Your task to perform on an android device: add a label to a message in the gmail app Image 0: 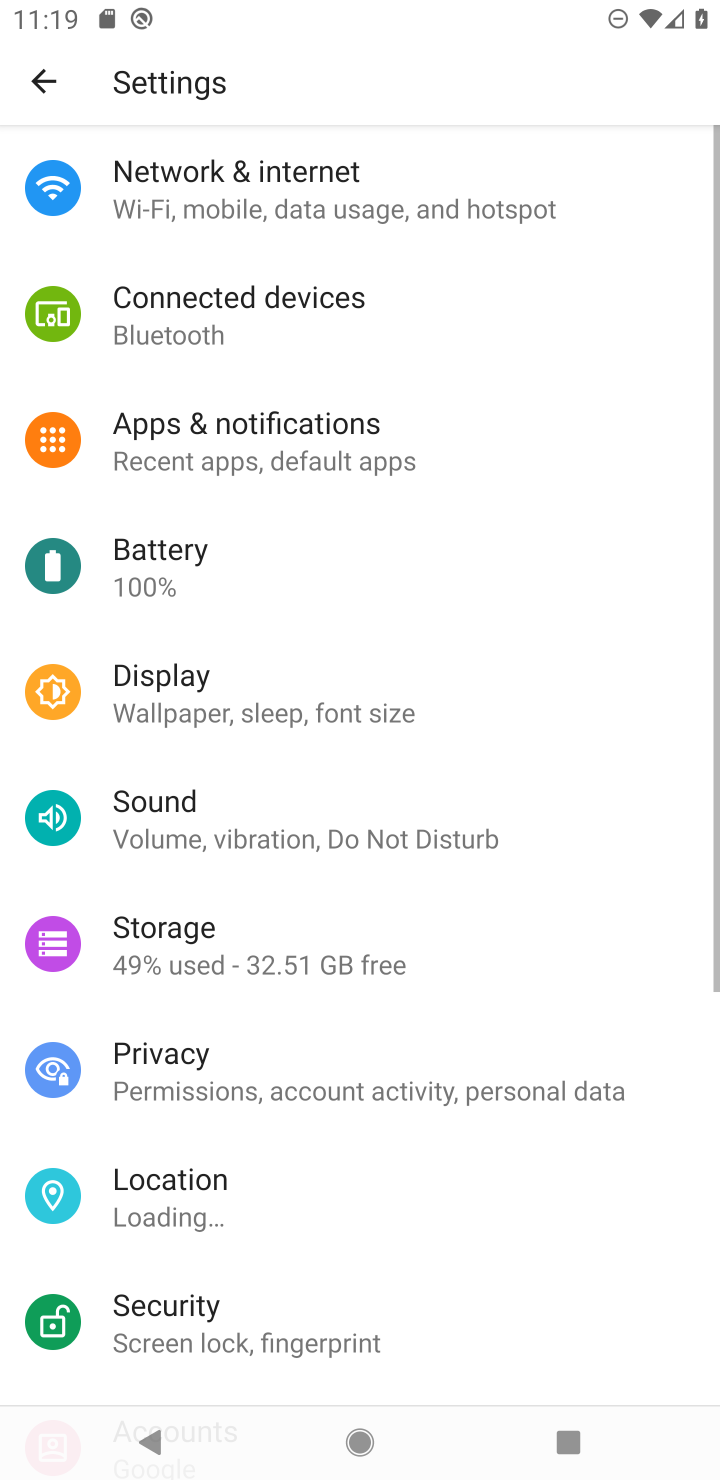
Step 0: drag from (290, 1289) to (327, 652)
Your task to perform on an android device: add a label to a message in the gmail app Image 1: 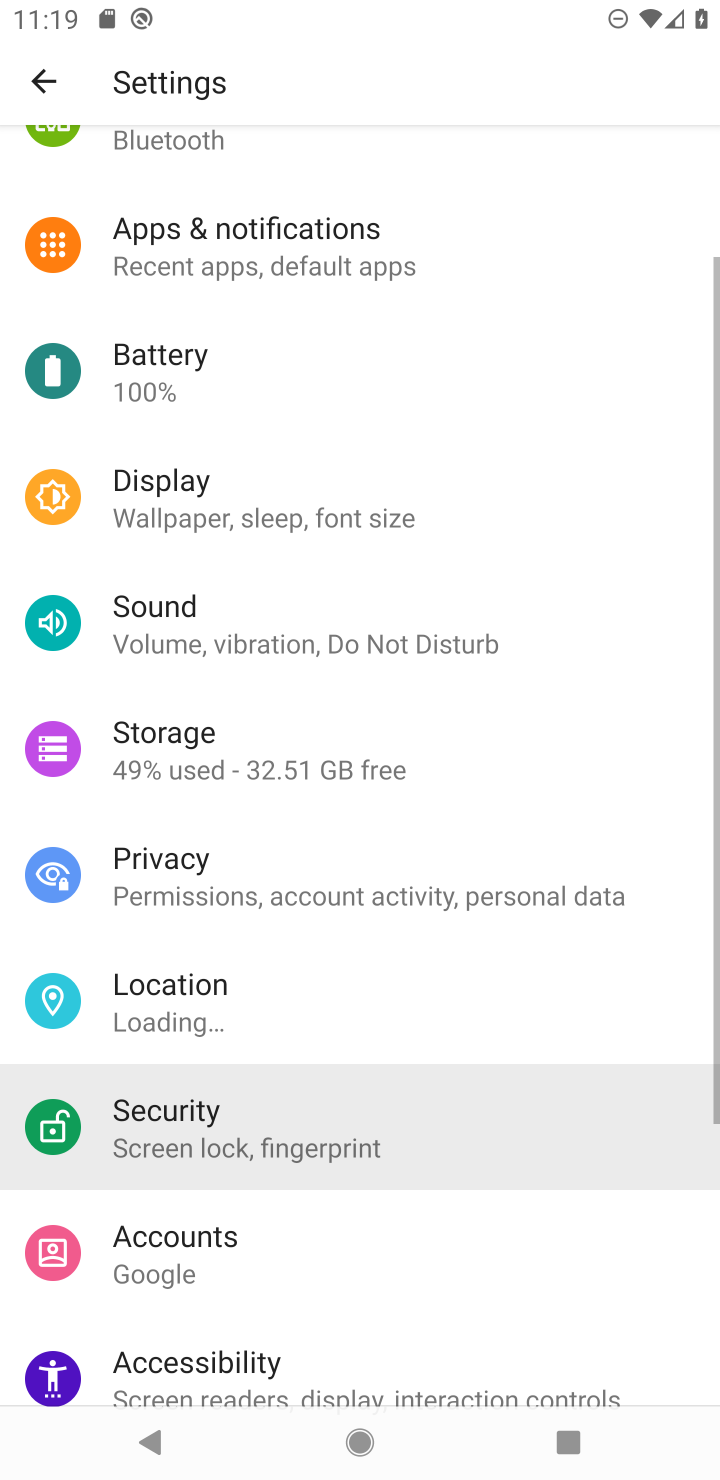
Step 1: drag from (401, 636) to (488, 1466)
Your task to perform on an android device: add a label to a message in the gmail app Image 2: 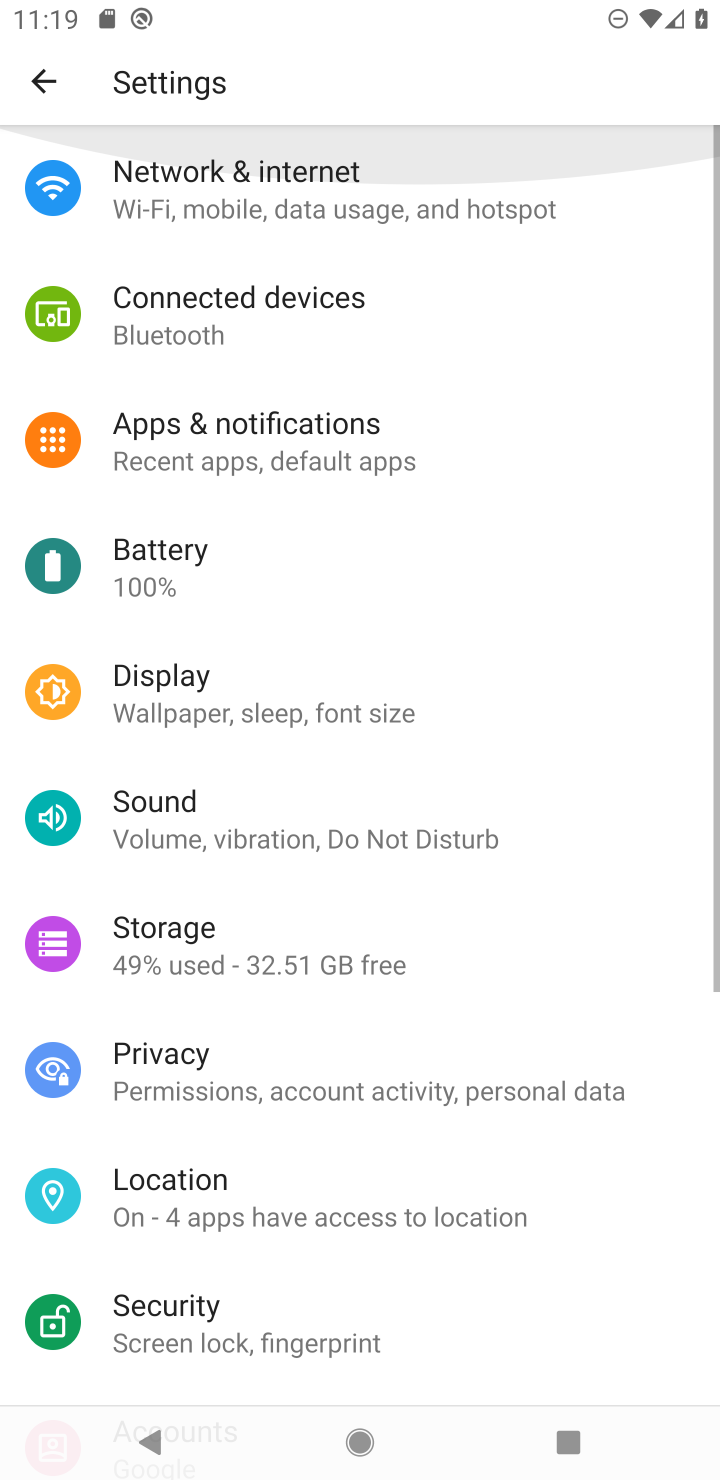
Step 2: press home button
Your task to perform on an android device: add a label to a message in the gmail app Image 3: 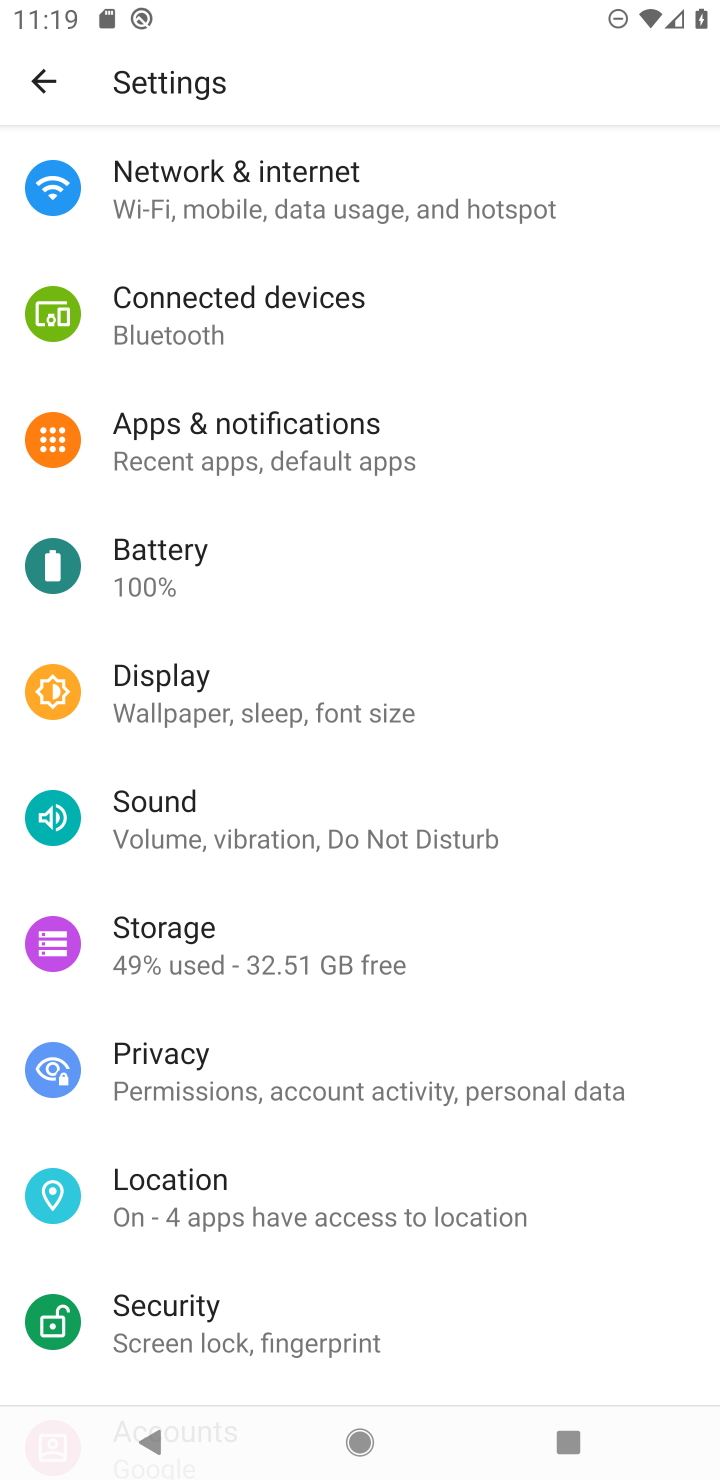
Step 3: press home button
Your task to perform on an android device: add a label to a message in the gmail app Image 4: 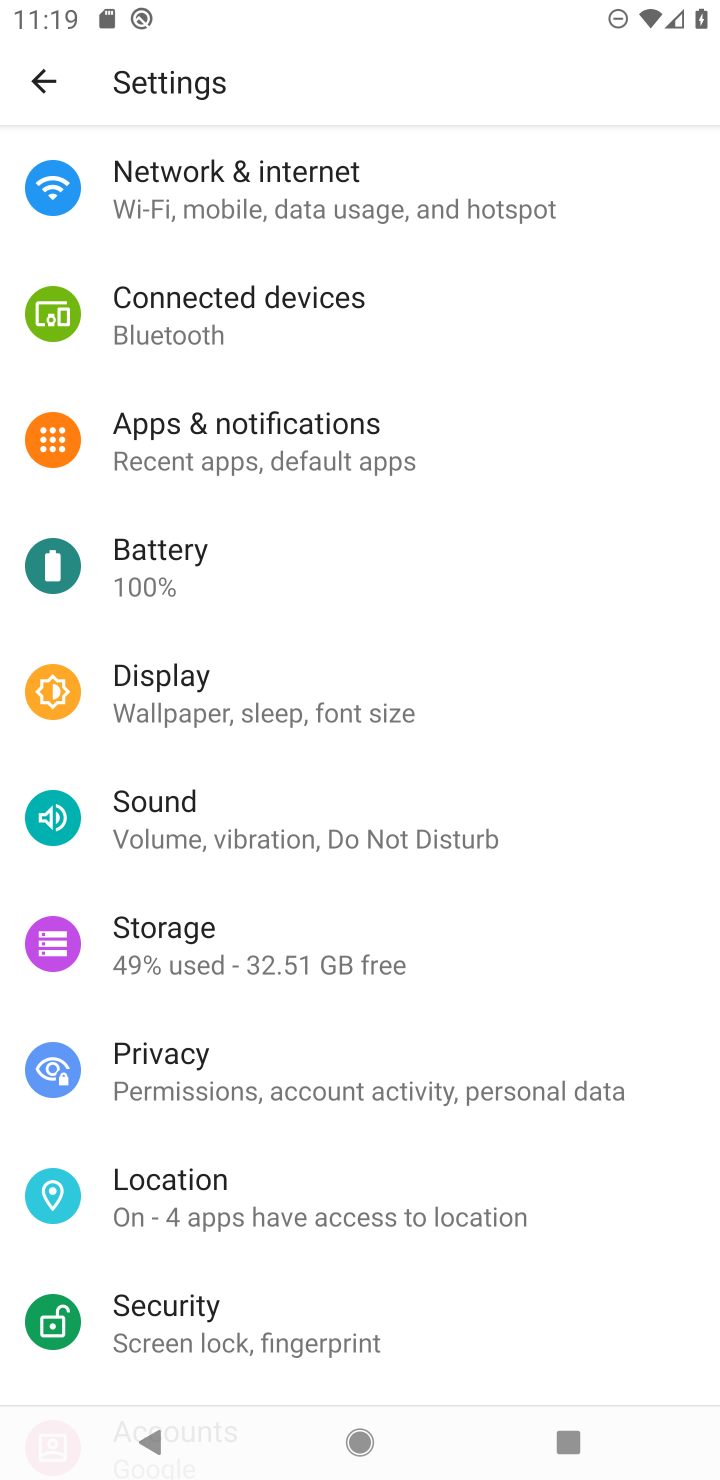
Step 4: click (458, 384)
Your task to perform on an android device: add a label to a message in the gmail app Image 5: 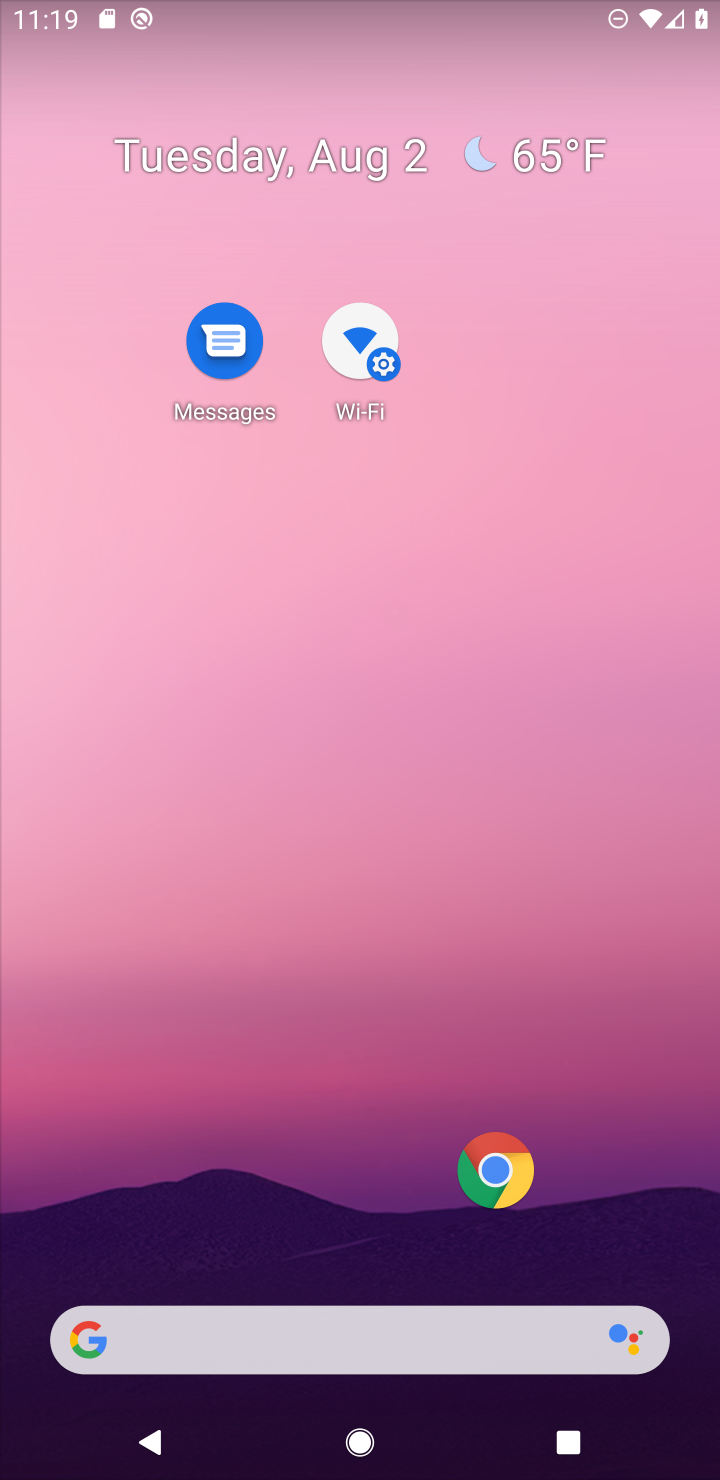
Step 5: drag from (301, 740) to (272, 467)
Your task to perform on an android device: add a label to a message in the gmail app Image 6: 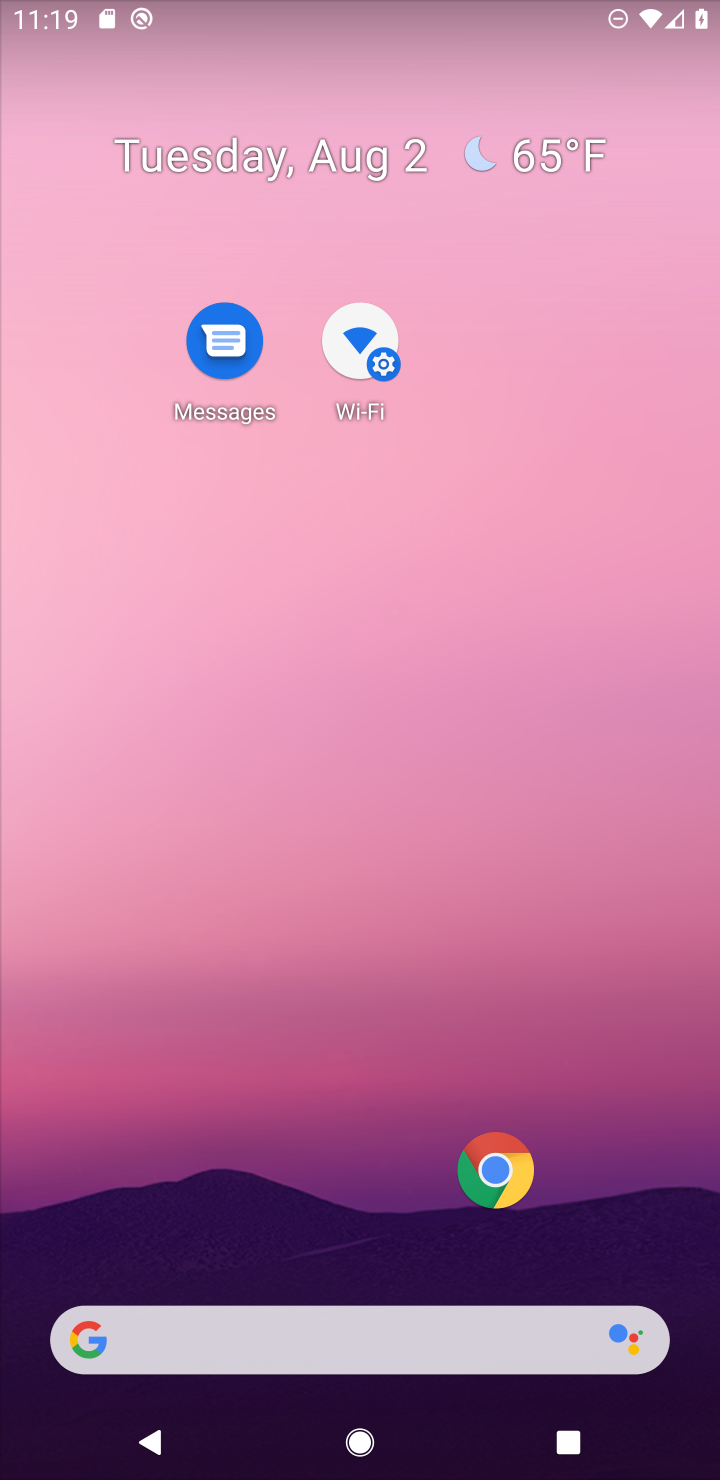
Step 6: drag from (458, 724) to (507, 203)
Your task to perform on an android device: add a label to a message in the gmail app Image 7: 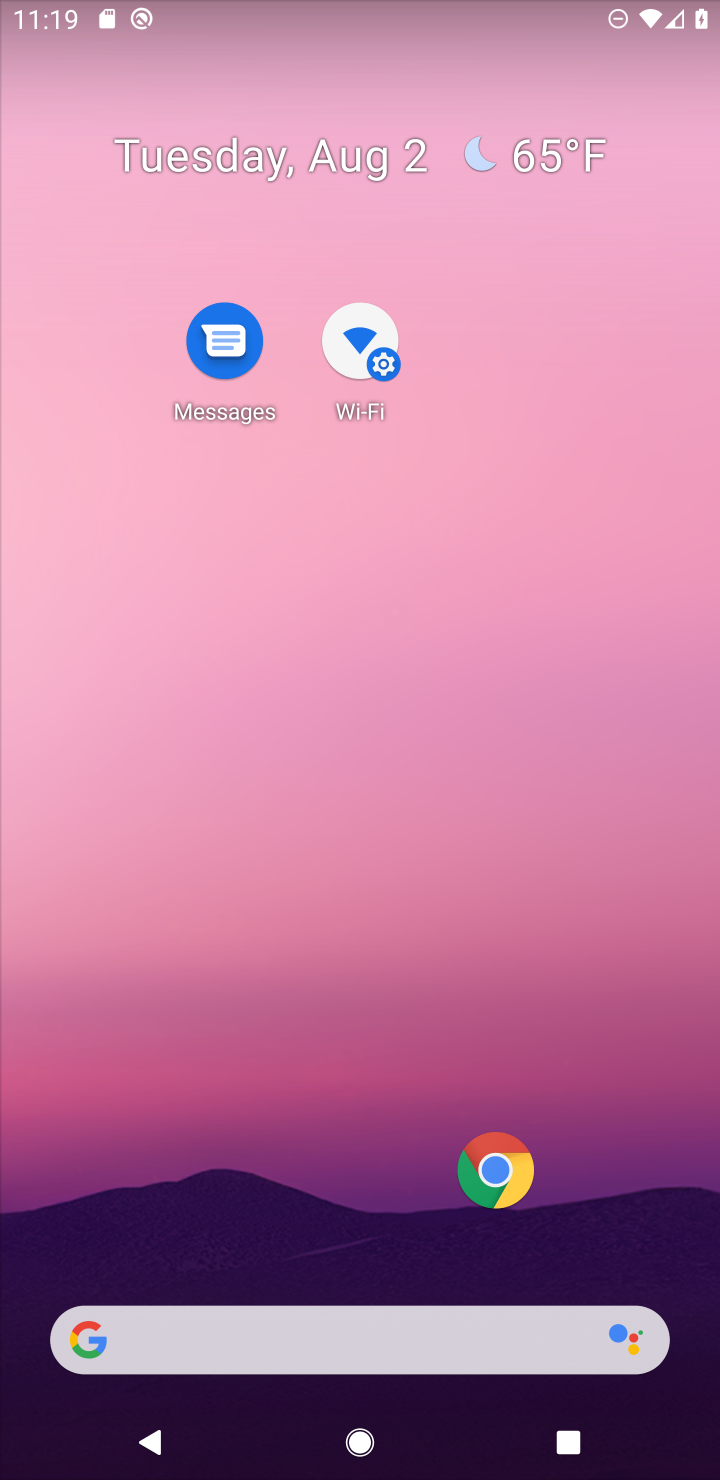
Step 7: drag from (330, 918) to (394, 184)
Your task to perform on an android device: add a label to a message in the gmail app Image 8: 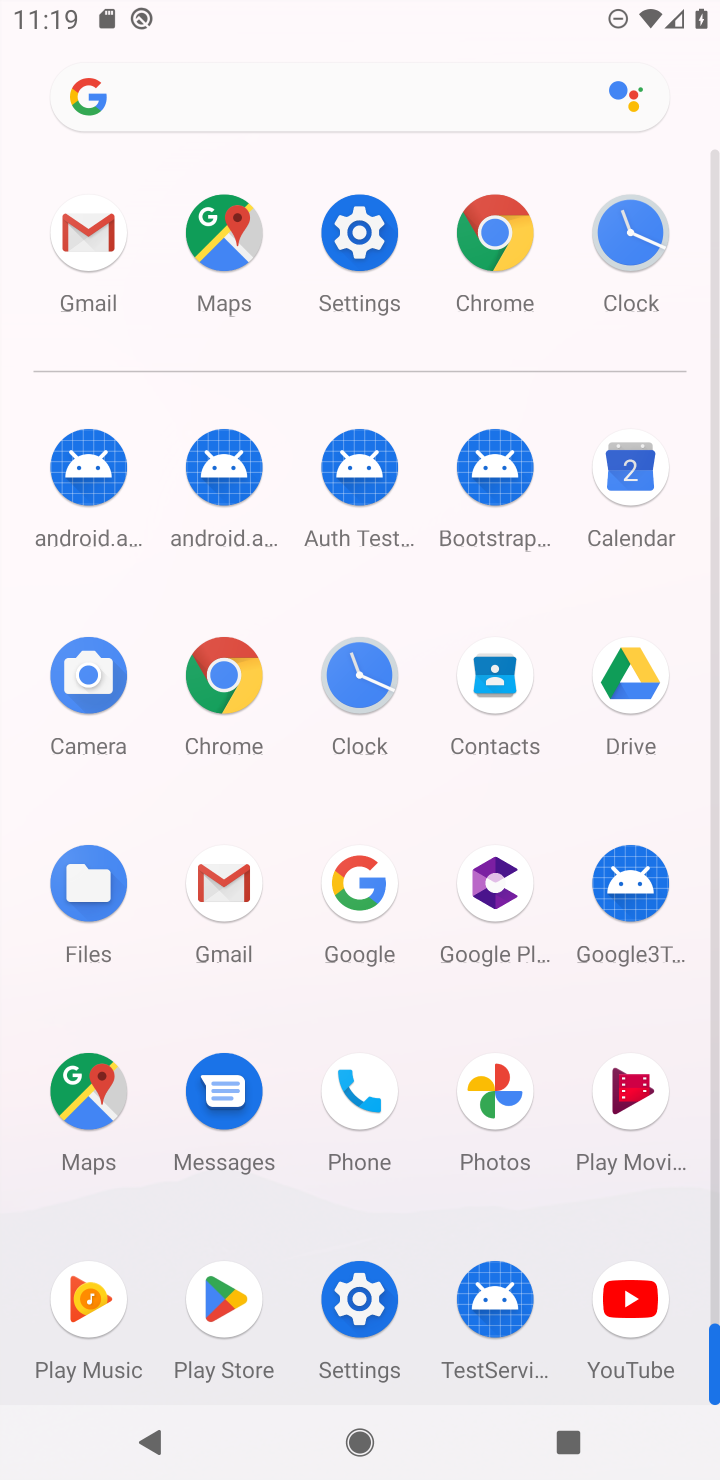
Step 8: drag from (272, 1178) to (306, 323)
Your task to perform on an android device: add a label to a message in the gmail app Image 9: 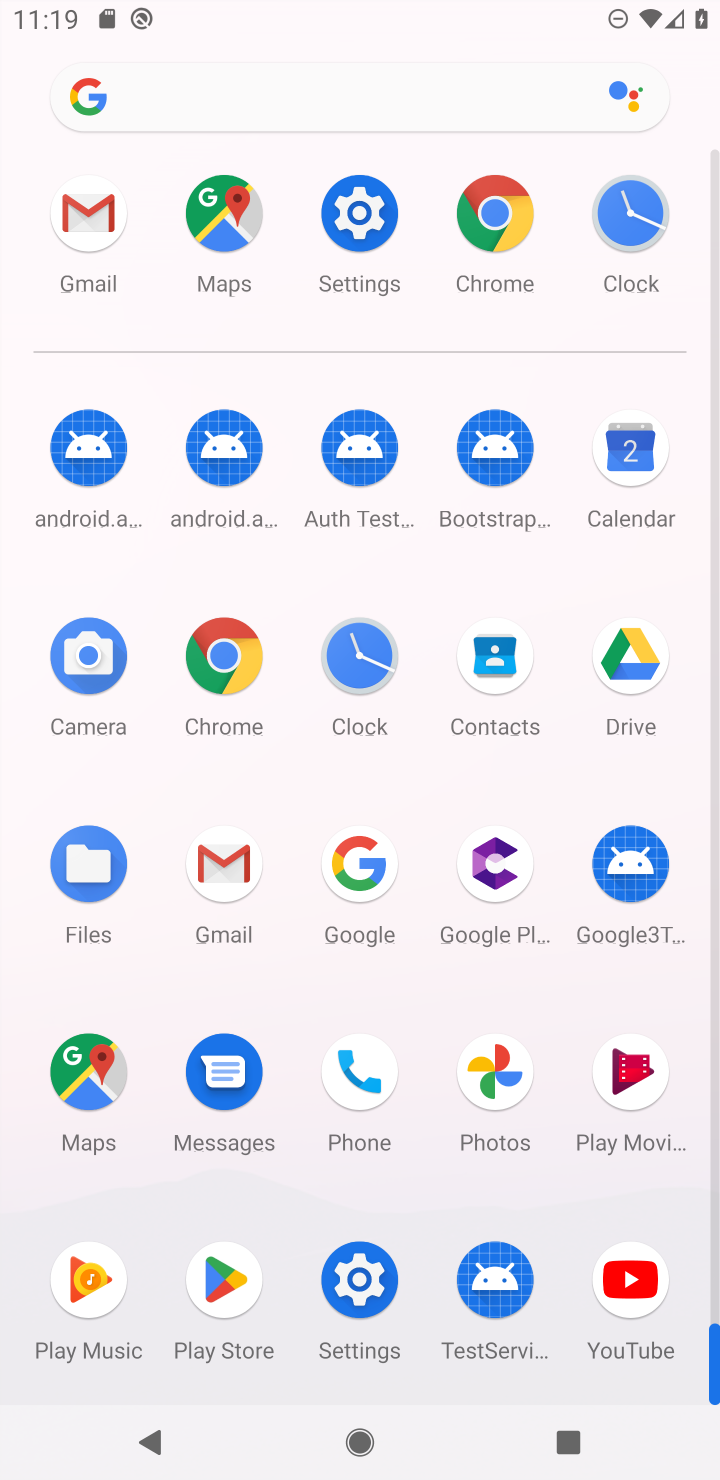
Step 9: click (215, 860)
Your task to perform on an android device: add a label to a message in the gmail app Image 10: 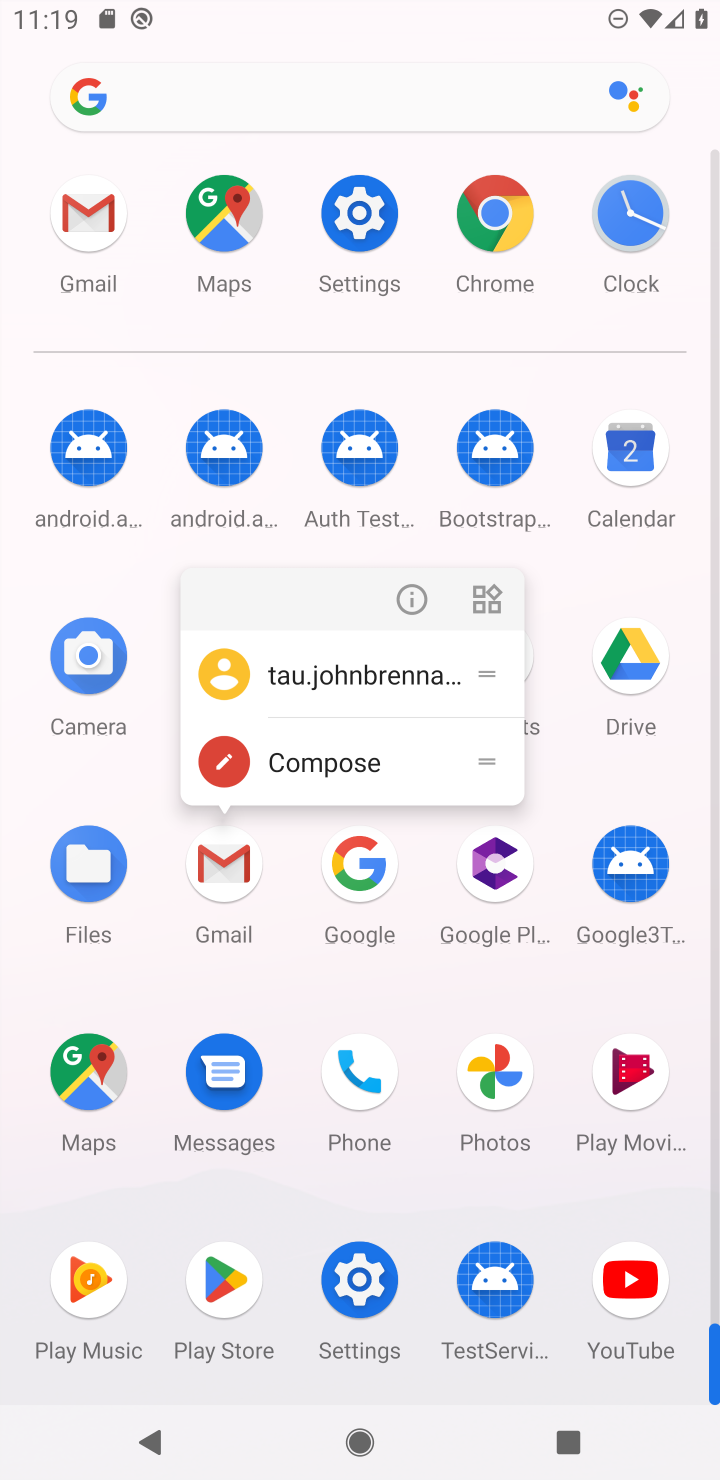
Step 10: click (428, 612)
Your task to perform on an android device: add a label to a message in the gmail app Image 11: 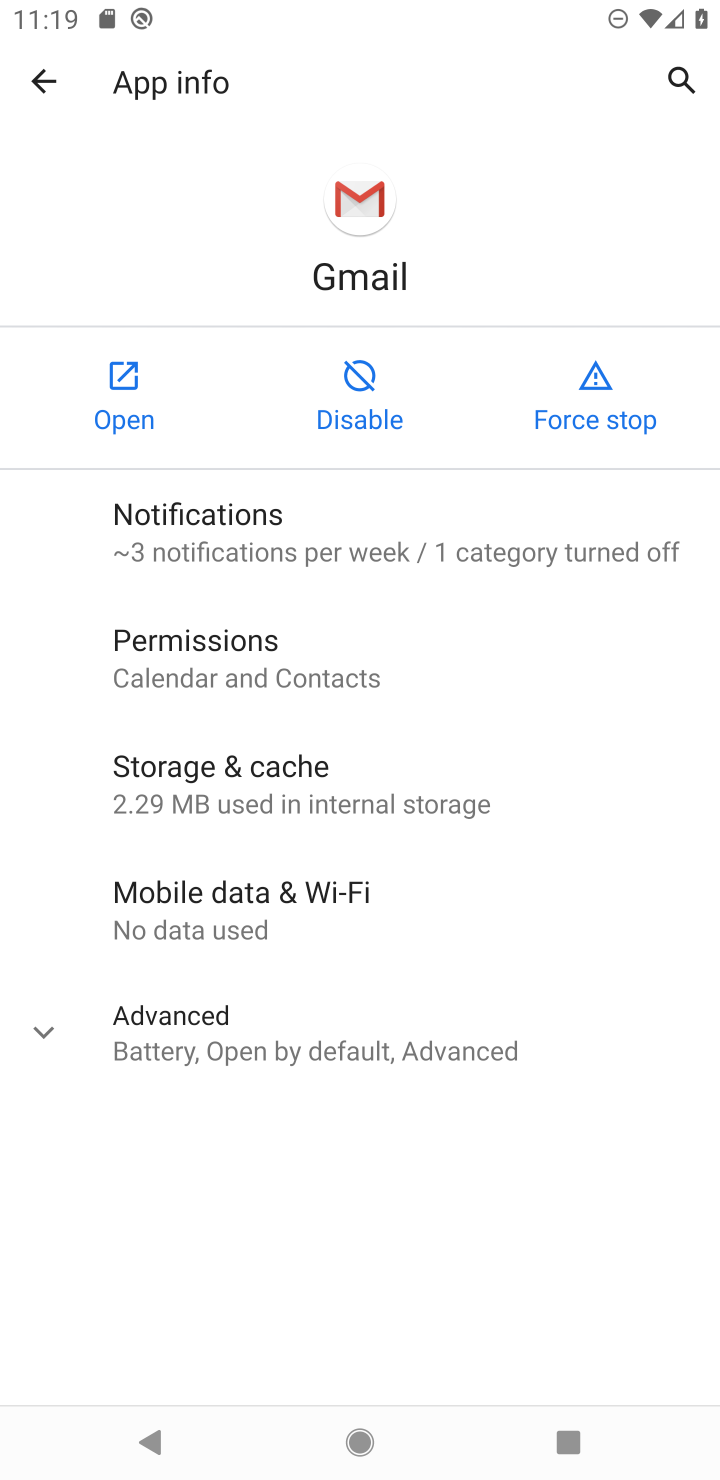
Step 11: click (128, 418)
Your task to perform on an android device: add a label to a message in the gmail app Image 12: 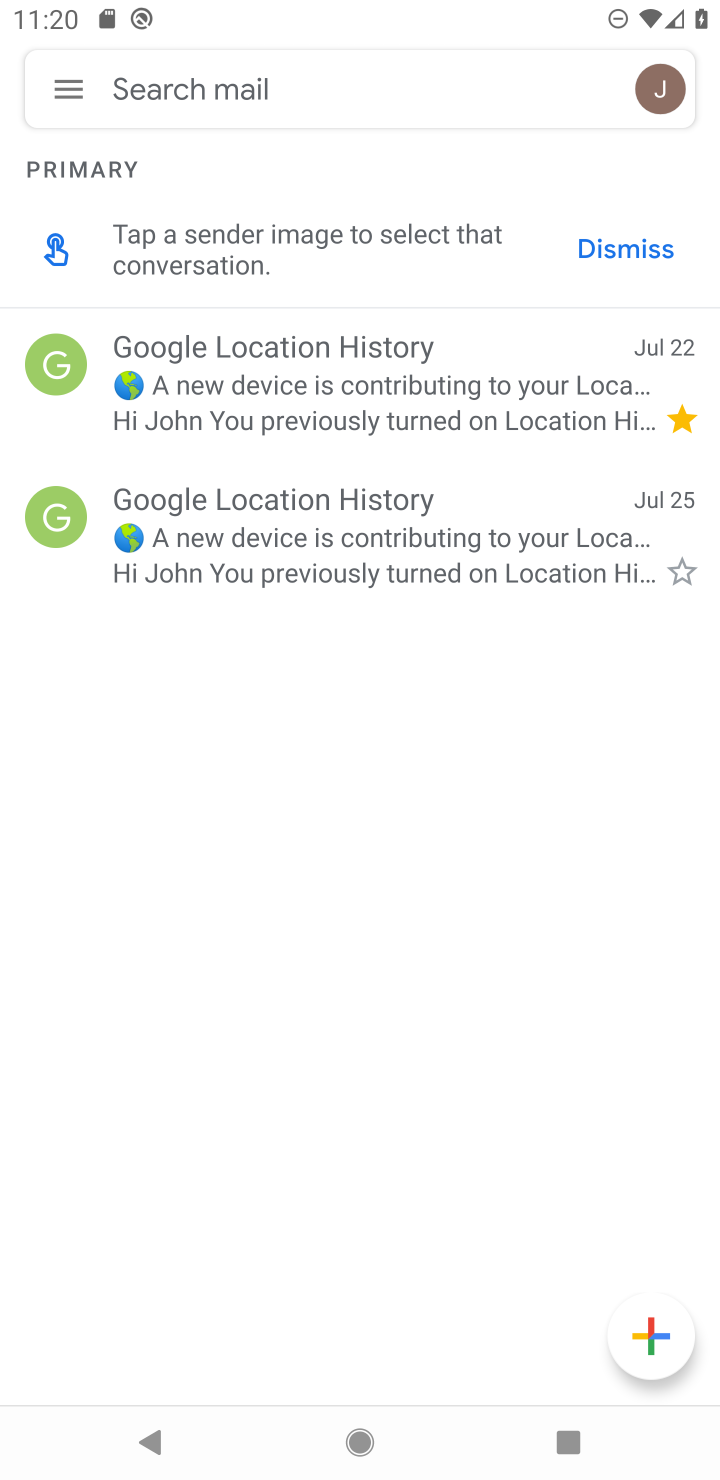
Step 12: click (57, 93)
Your task to perform on an android device: add a label to a message in the gmail app Image 13: 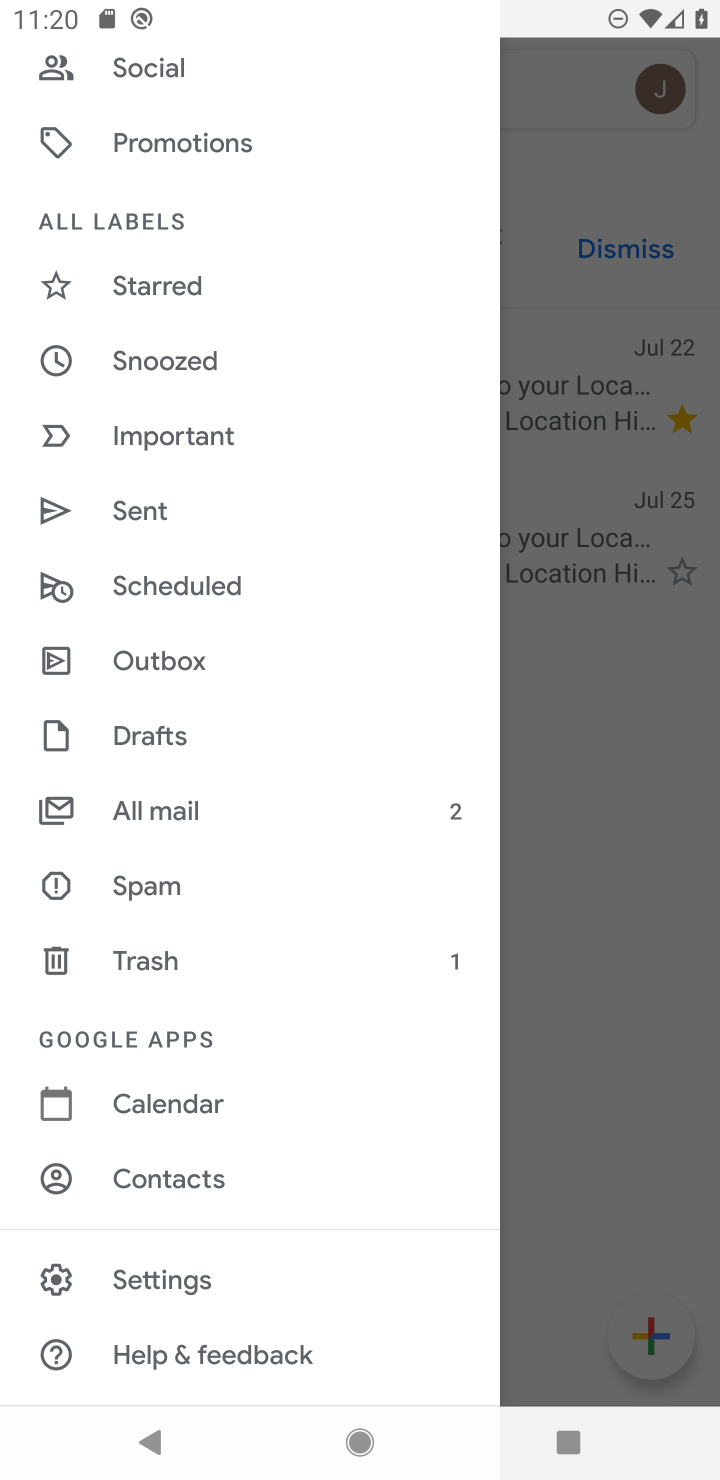
Step 13: drag from (239, 304) to (404, 1210)
Your task to perform on an android device: add a label to a message in the gmail app Image 14: 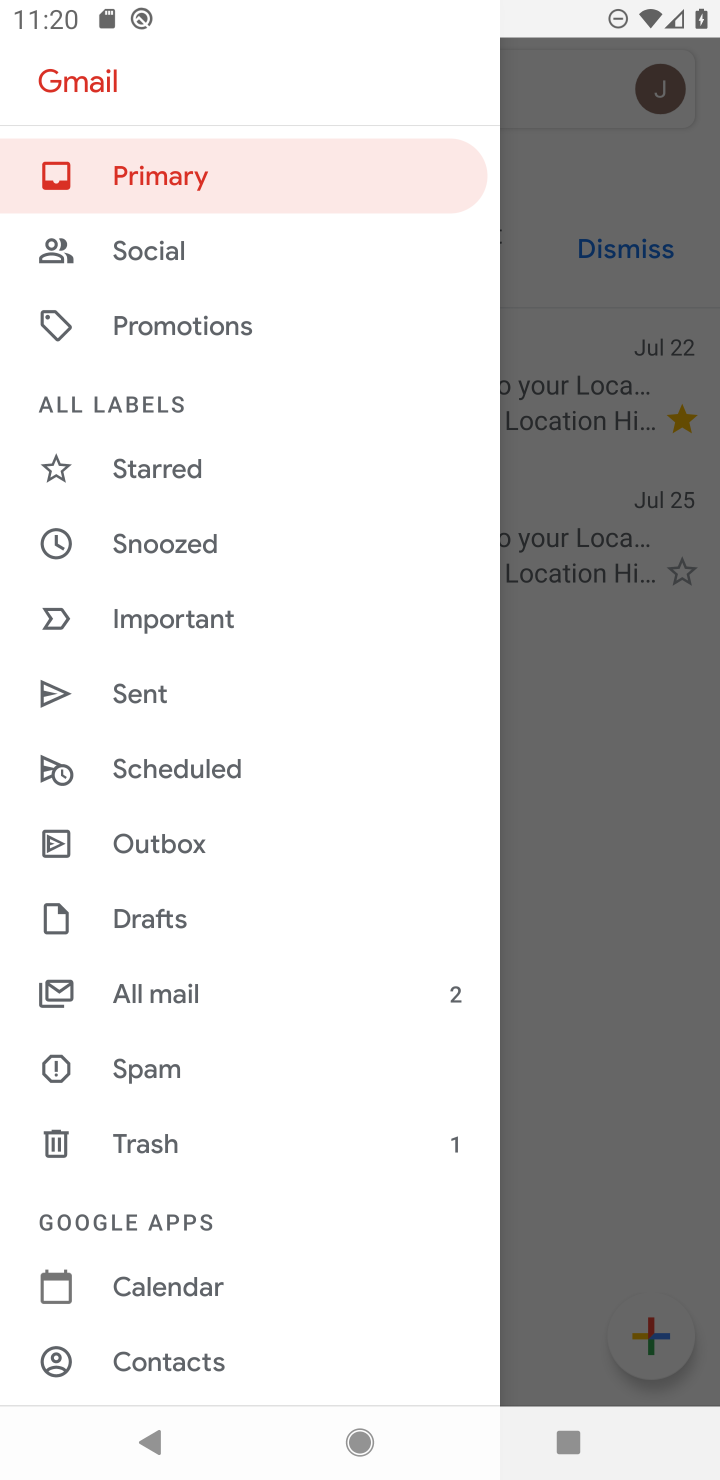
Step 14: click (238, 181)
Your task to perform on an android device: add a label to a message in the gmail app Image 15: 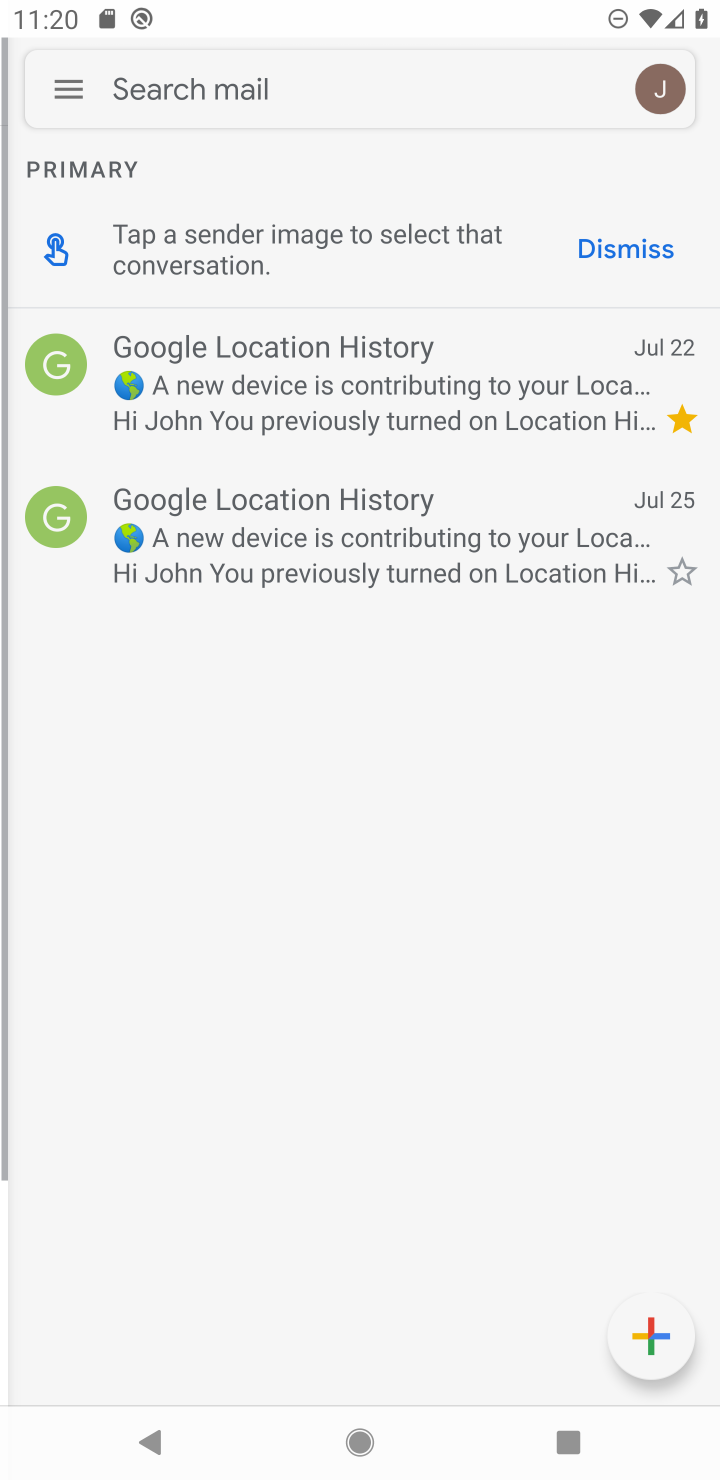
Step 15: click (645, 995)
Your task to perform on an android device: add a label to a message in the gmail app Image 16: 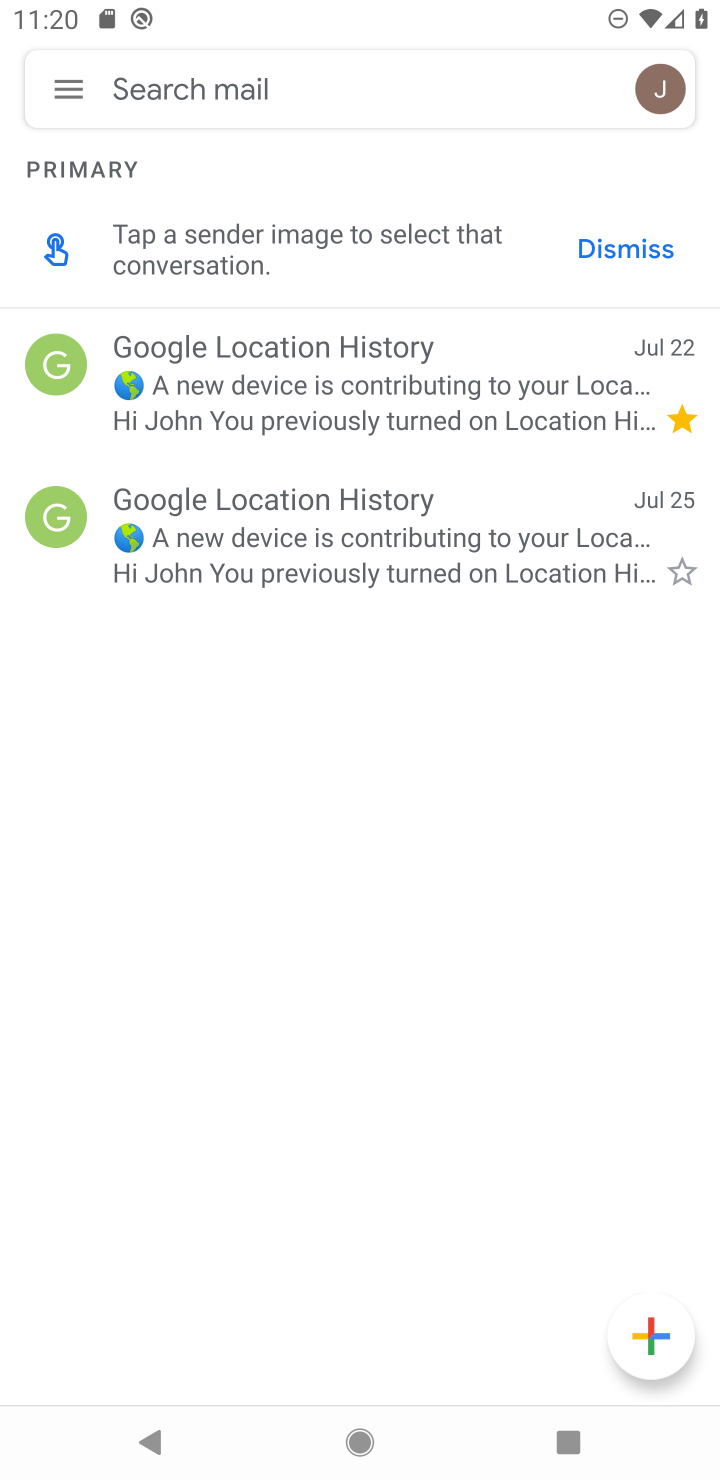
Step 16: click (446, 546)
Your task to perform on an android device: add a label to a message in the gmail app Image 17: 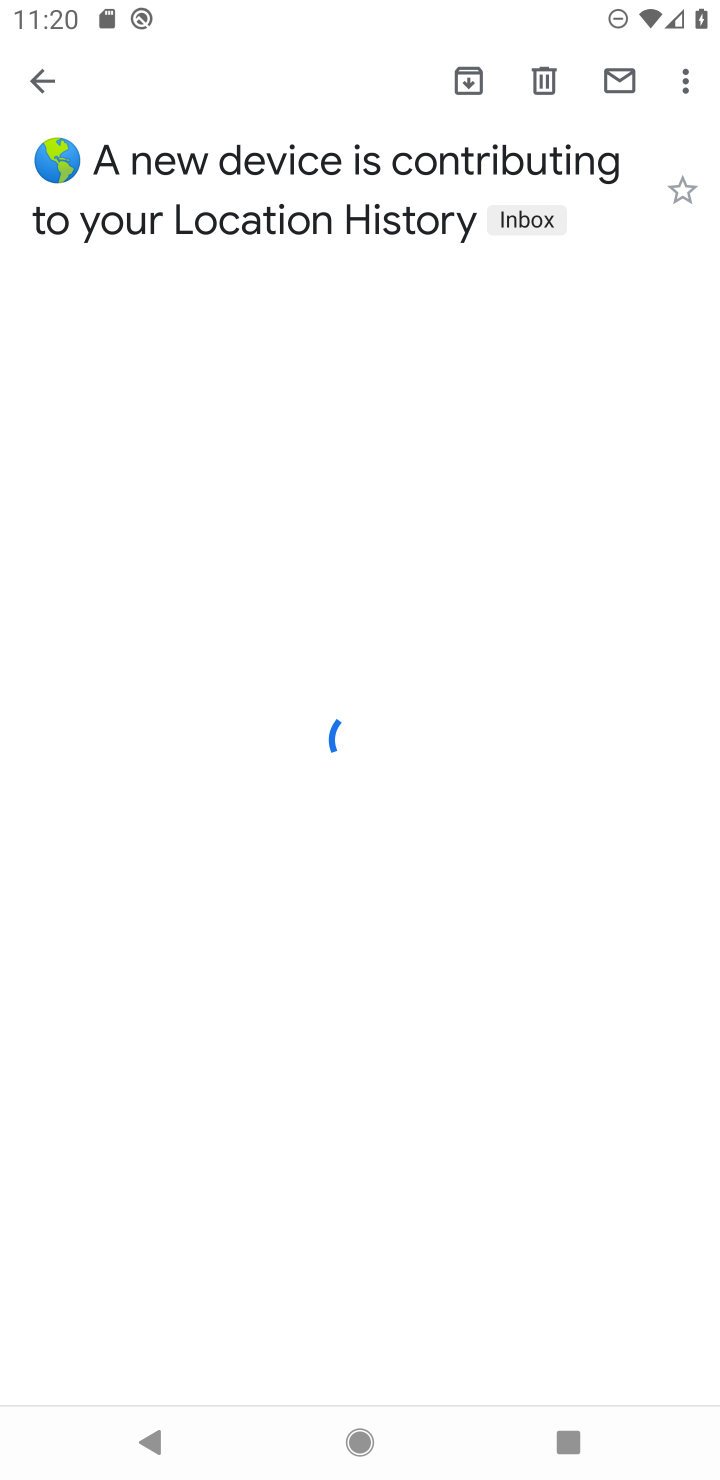
Step 17: click (684, 184)
Your task to perform on an android device: add a label to a message in the gmail app Image 18: 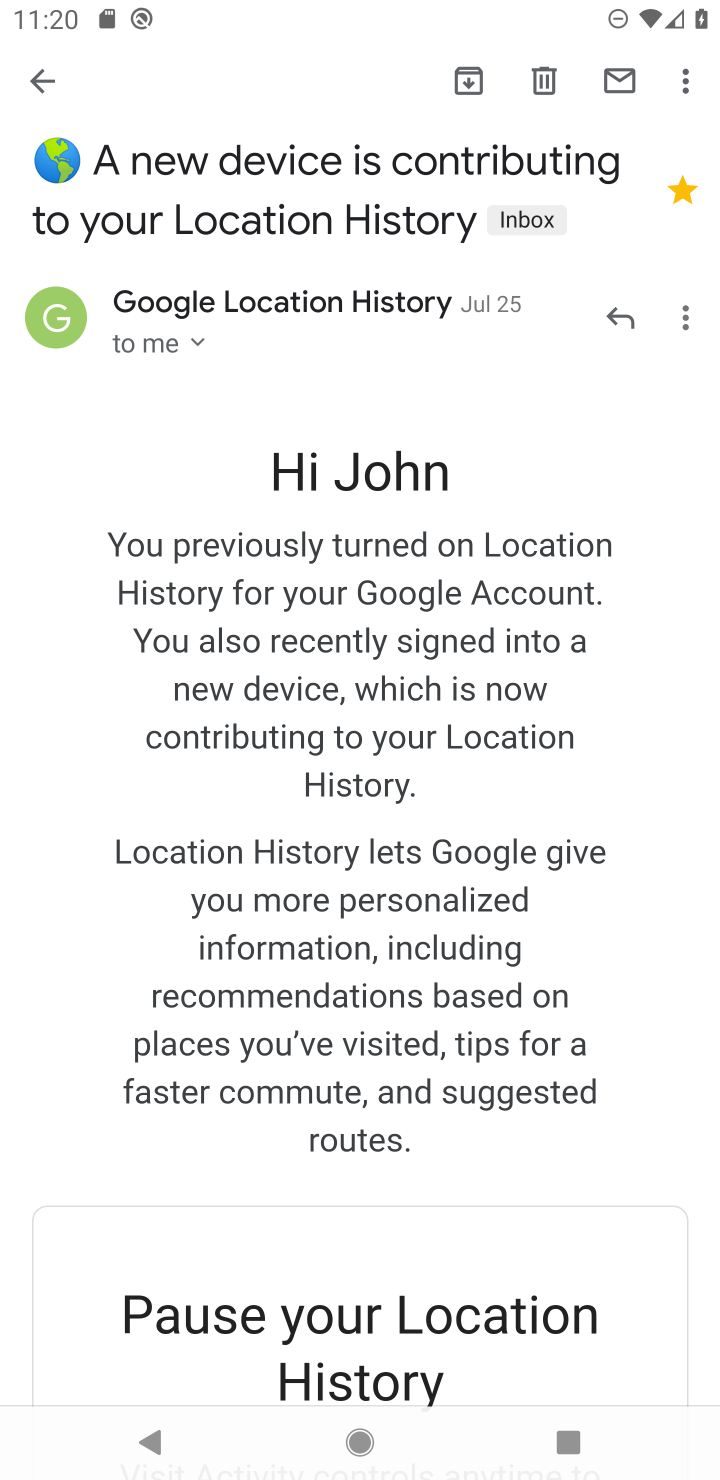
Step 18: task complete